Your task to perform on an android device: Go to Android settings Image 0: 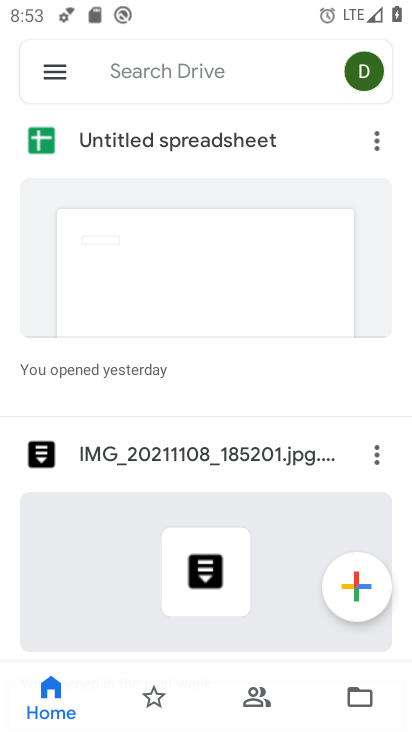
Step 0: press home button
Your task to perform on an android device: Go to Android settings Image 1: 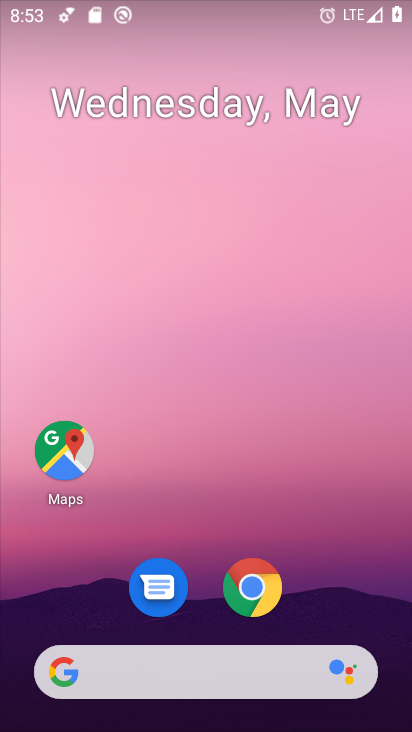
Step 1: drag from (214, 599) to (225, 94)
Your task to perform on an android device: Go to Android settings Image 2: 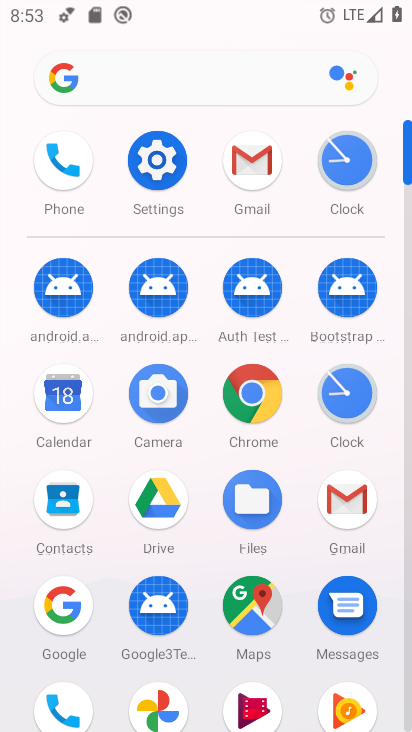
Step 2: click (163, 164)
Your task to perform on an android device: Go to Android settings Image 3: 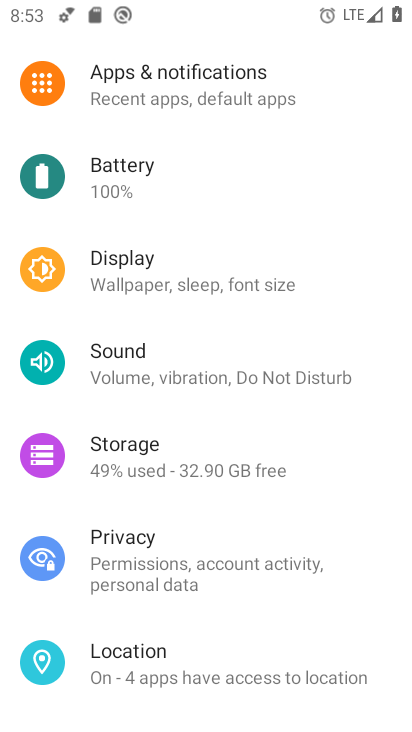
Step 3: drag from (214, 235) to (295, 4)
Your task to perform on an android device: Go to Android settings Image 4: 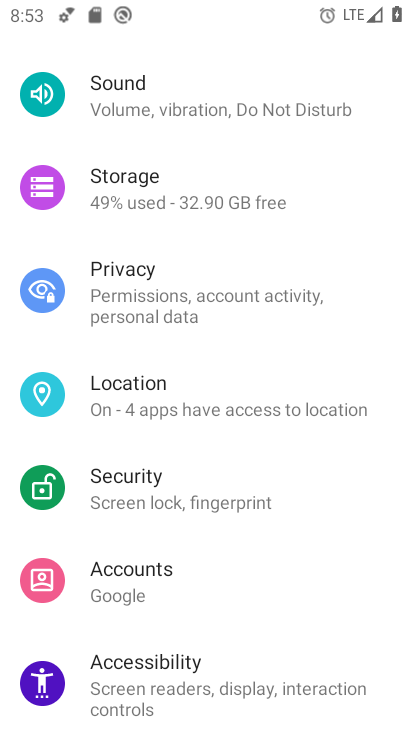
Step 4: drag from (235, 532) to (314, 101)
Your task to perform on an android device: Go to Android settings Image 5: 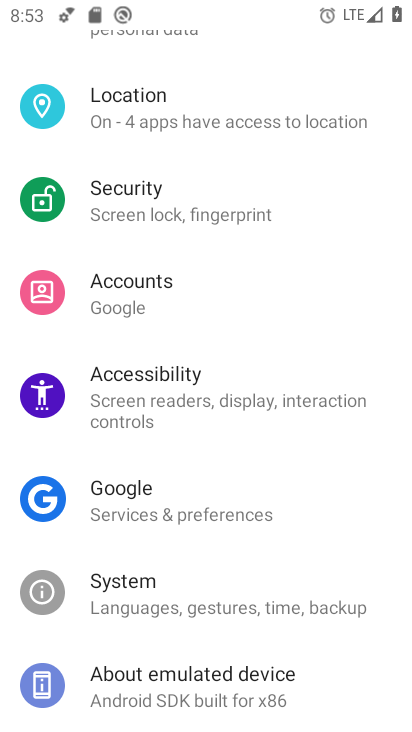
Step 5: drag from (184, 571) to (279, 36)
Your task to perform on an android device: Go to Android settings Image 6: 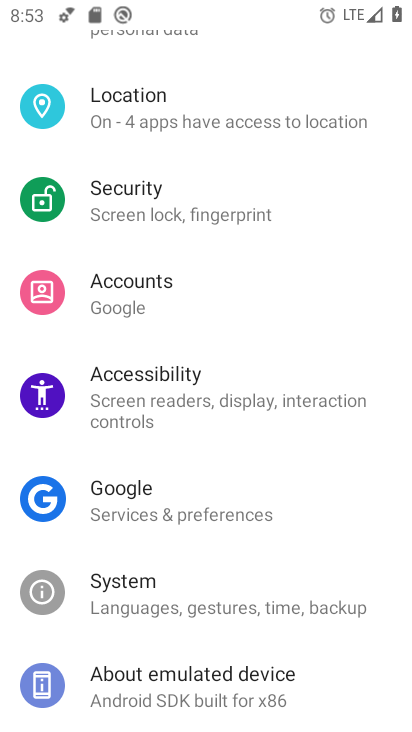
Step 6: click (157, 678)
Your task to perform on an android device: Go to Android settings Image 7: 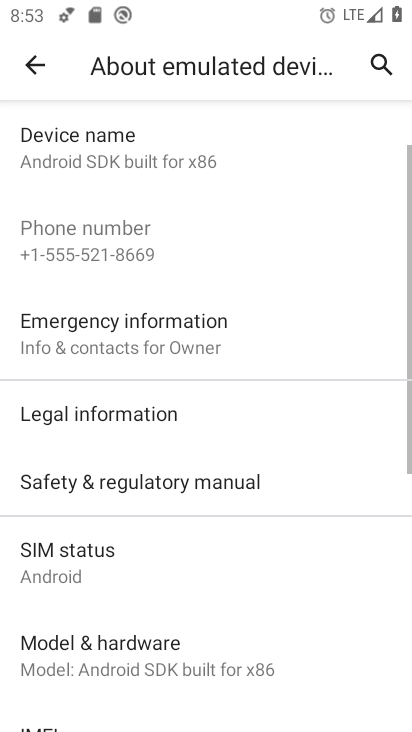
Step 7: drag from (75, 517) to (138, 172)
Your task to perform on an android device: Go to Android settings Image 8: 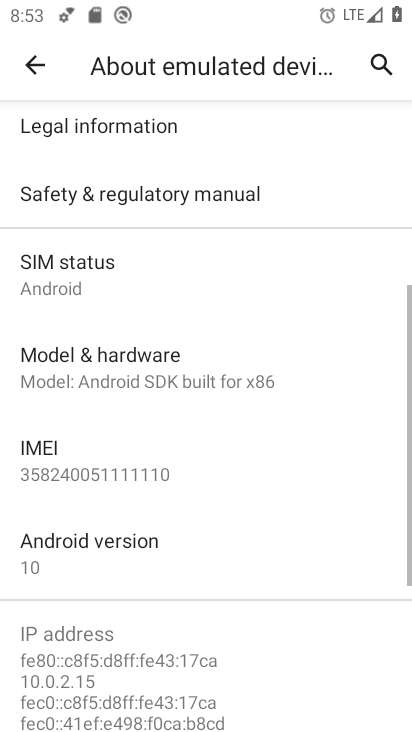
Step 8: drag from (90, 461) to (120, 235)
Your task to perform on an android device: Go to Android settings Image 9: 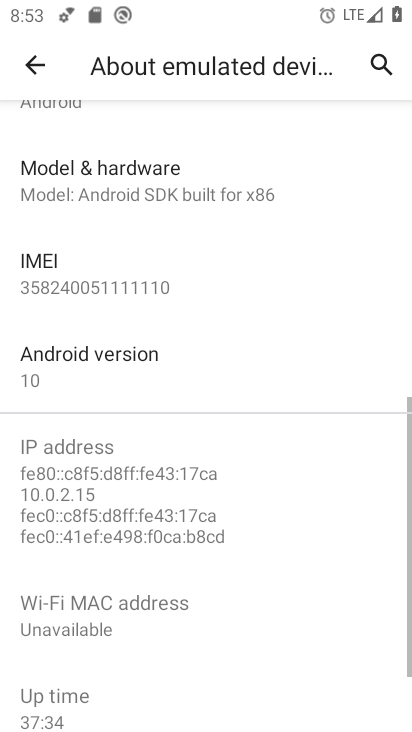
Step 9: click (93, 381)
Your task to perform on an android device: Go to Android settings Image 10: 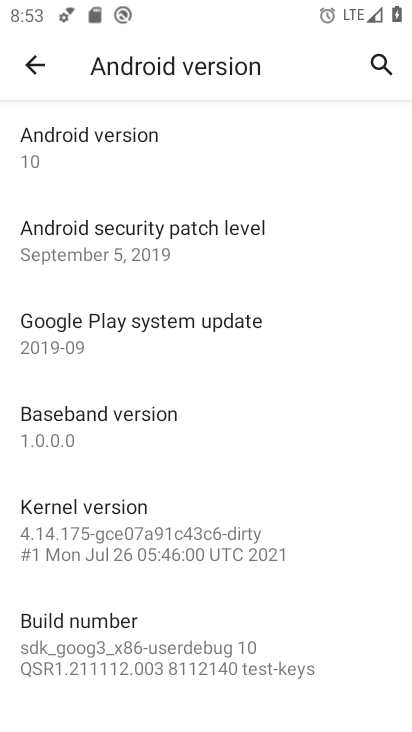
Step 10: task complete